Your task to perform on an android device: Open network settings Image 0: 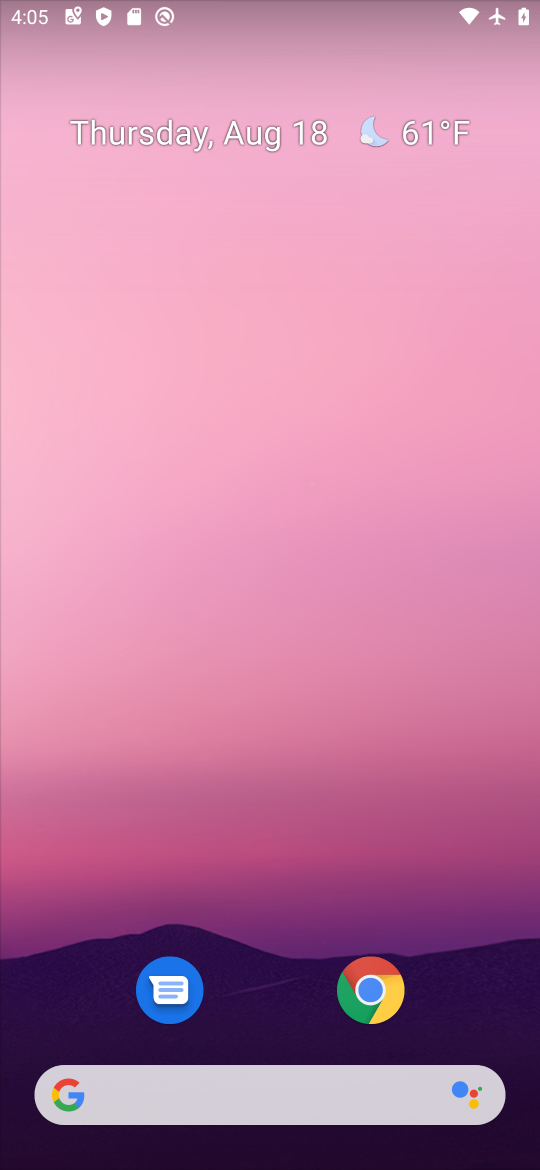
Step 0: drag from (271, 908) to (301, 173)
Your task to perform on an android device: Open network settings Image 1: 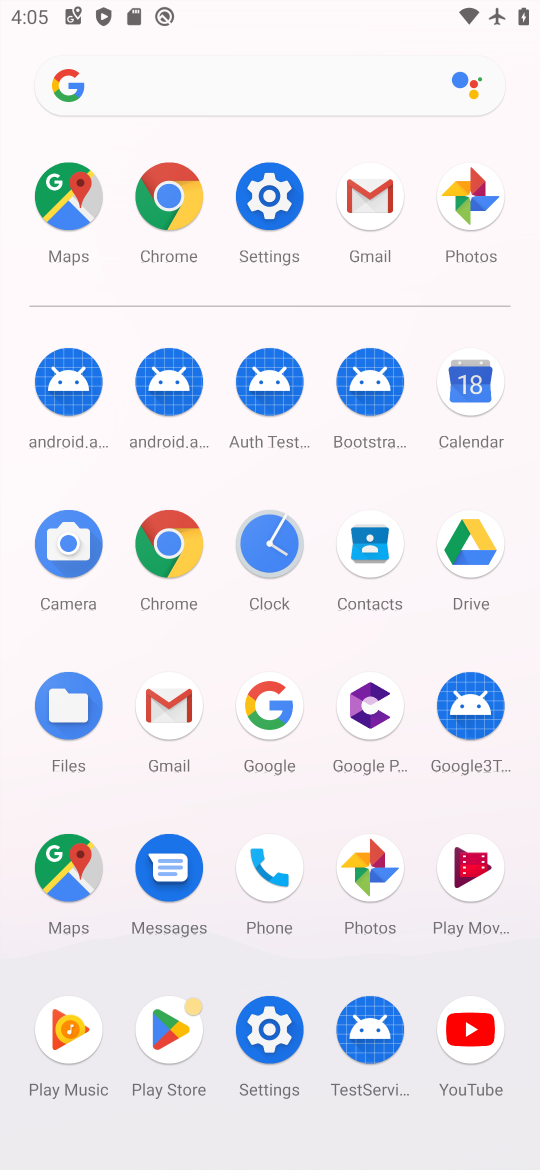
Step 1: click (275, 1017)
Your task to perform on an android device: Open network settings Image 2: 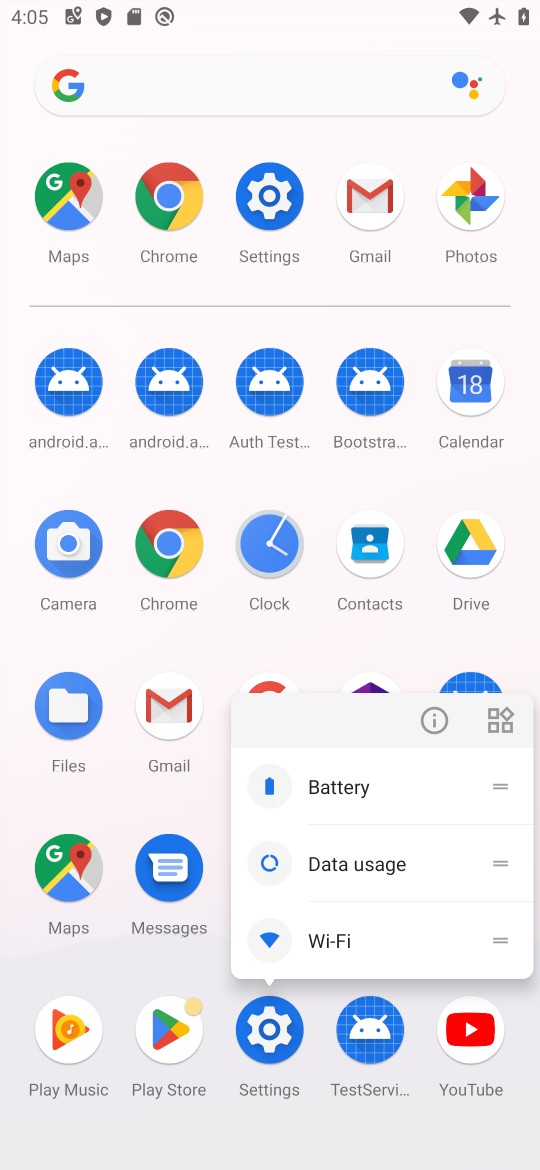
Step 2: click (275, 1012)
Your task to perform on an android device: Open network settings Image 3: 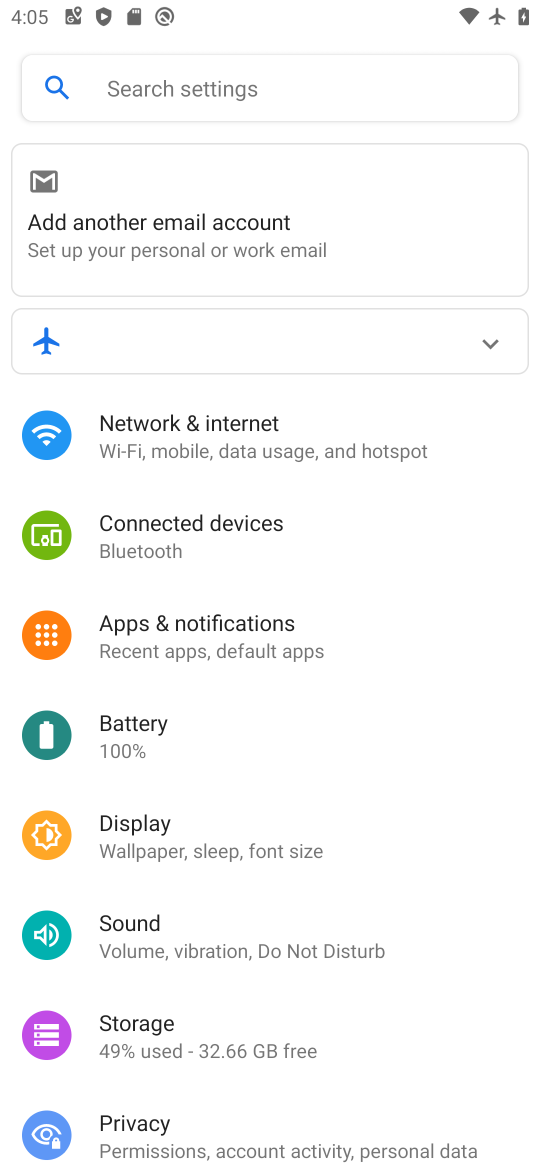
Step 3: click (234, 458)
Your task to perform on an android device: Open network settings Image 4: 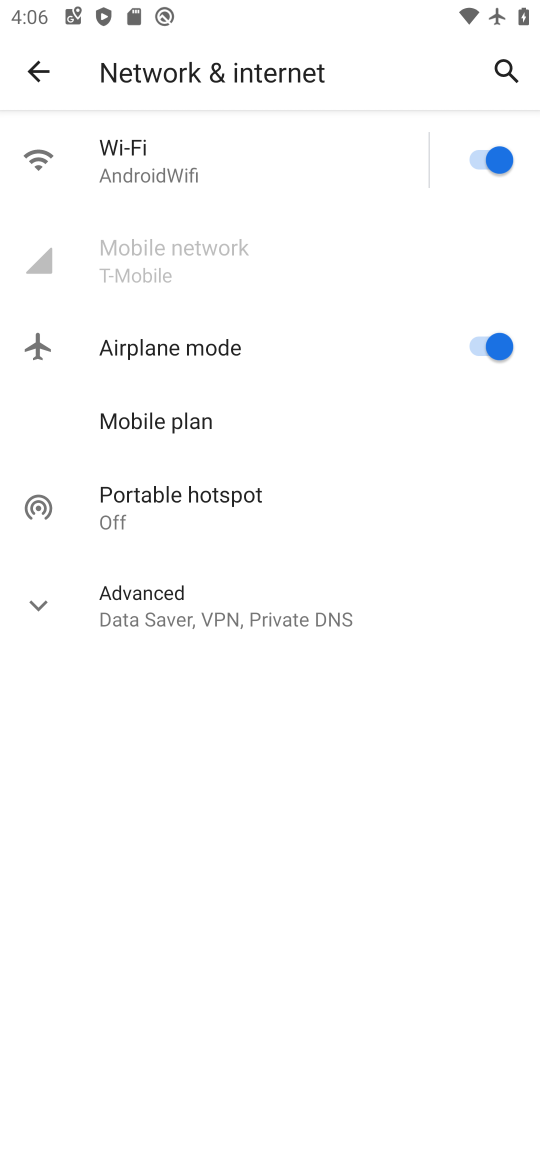
Step 4: task complete